Your task to perform on an android device: Open wifi settings Image 0: 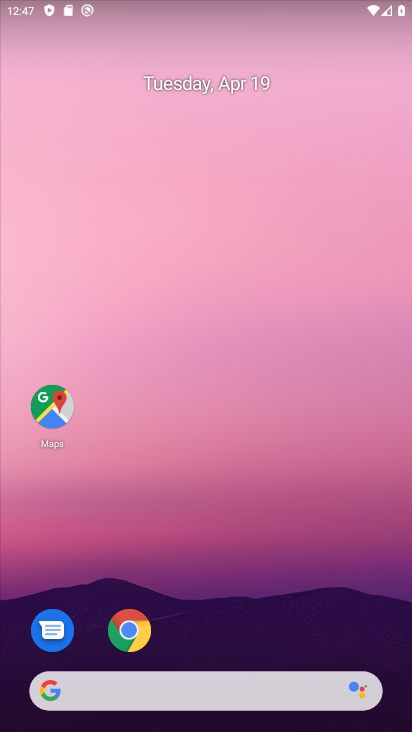
Step 0: drag from (229, 665) to (338, 147)
Your task to perform on an android device: Open wifi settings Image 1: 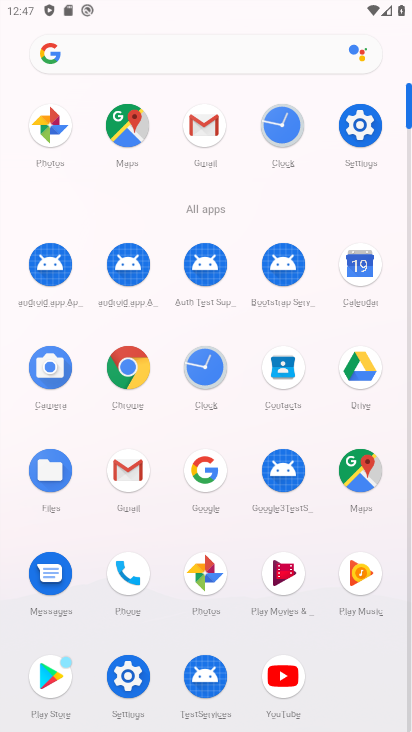
Step 1: click (370, 125)
Your task to perform on an android device: Open wifi settings Image 2: 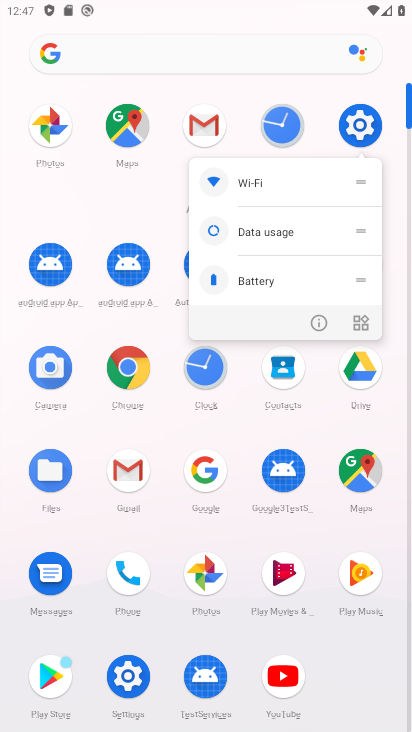
Step 2: click (366, 125)
Your task to perform on an android device: Open wifi settings Image 3: 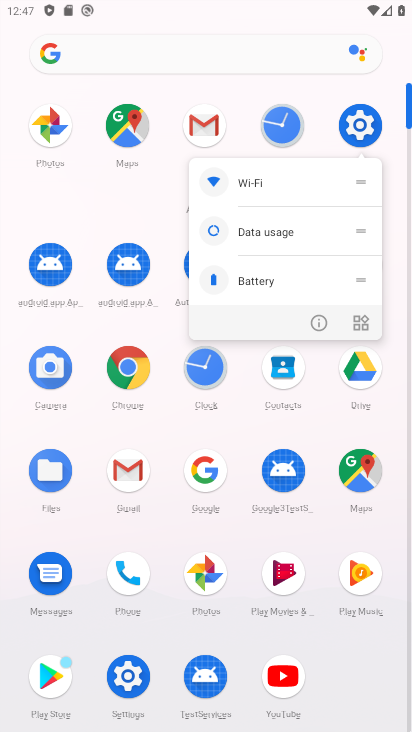
Step 3: click (359, 125)
Your task to perform on an android device: Open wifi settings Image 4: 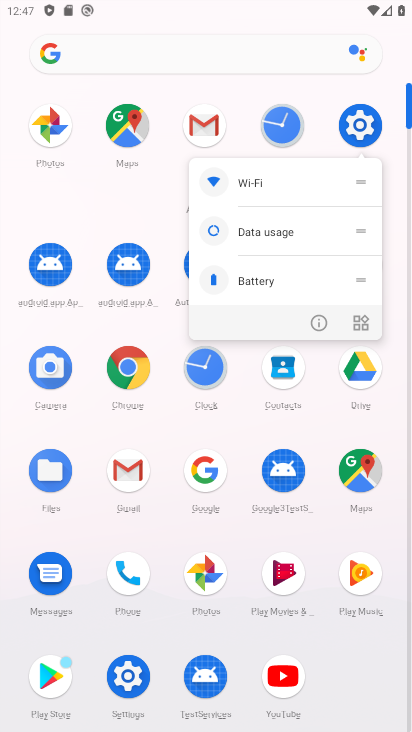
Step 4: click (362, 138)
Your task to perform on an android device: Open wifi settings Image 5: 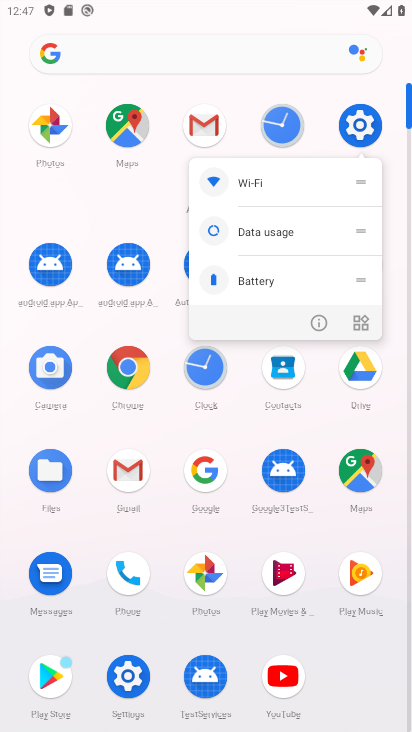
Step 5: click (356, 125)
Your task to perform on an android device: Open wifi settings Image 6: 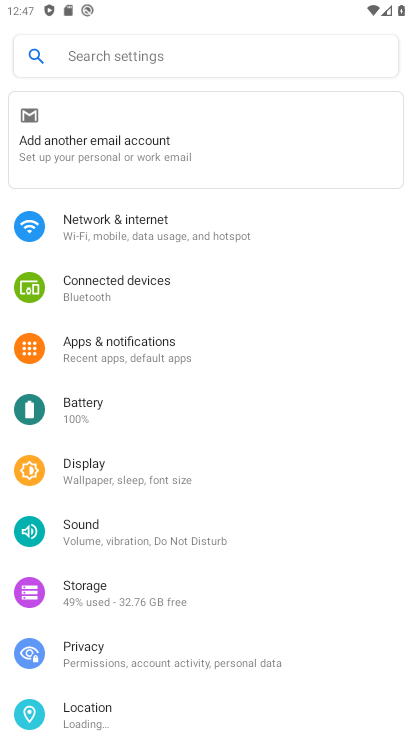
Step 6: click (202, 225)
Your task to perform on an android device: Open wifi settings Image 7: 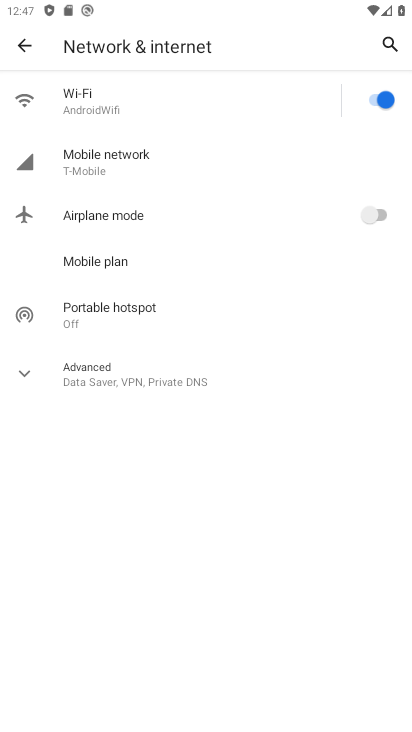
Step 7: click (235, 112)
Your task to perform on an android device: Open wifi settings Image 8: 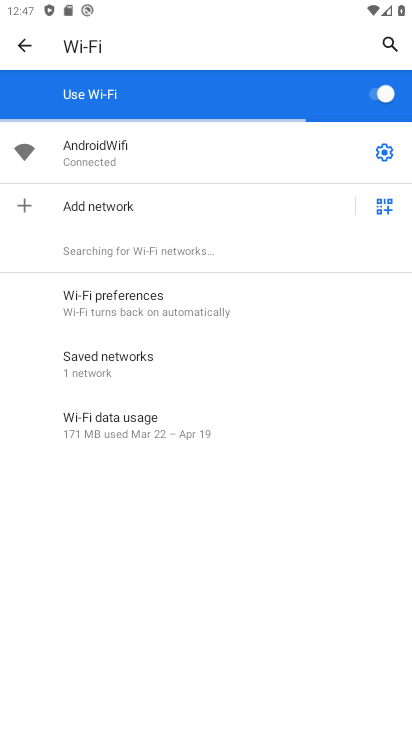
Step 8: task complete